Your task to perform on an android device: open a bookmark in the chrome app Image 0: 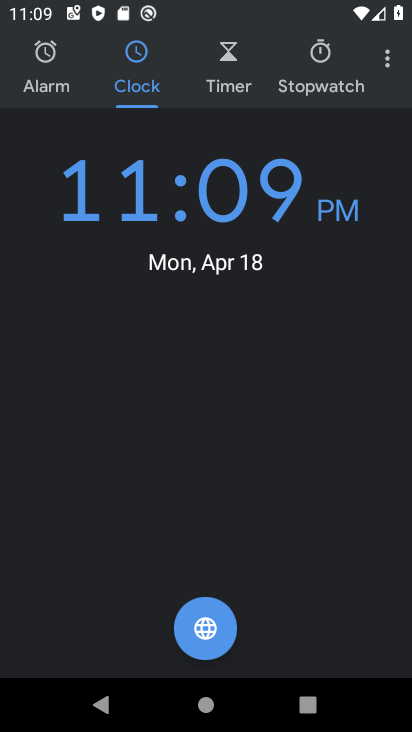
Step 0: press back button
Your task to perform on an android device: open a bookmark in the chrome app Image 1: 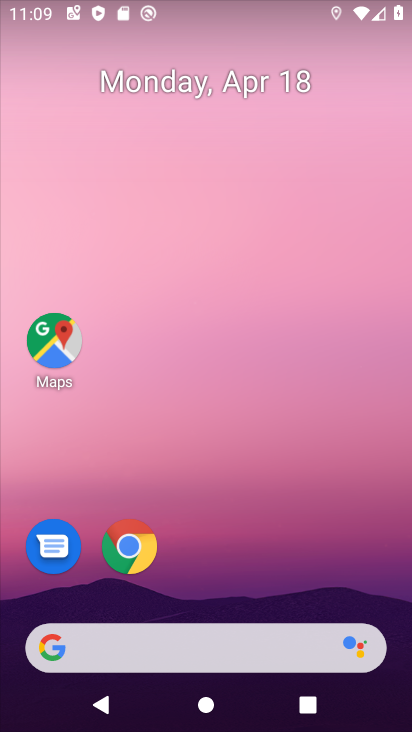
Step 1: click (119, 542)
Your task to perform on an android device: open a bookmark in the chrome app Image 2: 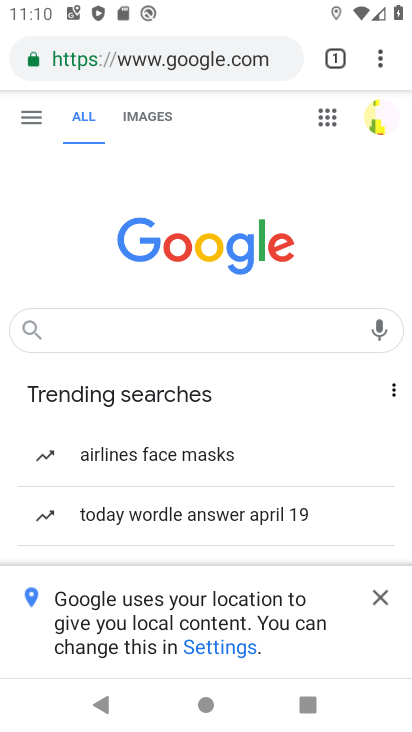
Step 2: click (389, 61)
Your task to perform on an android device: open a bookmark in the chrome app Image 3: 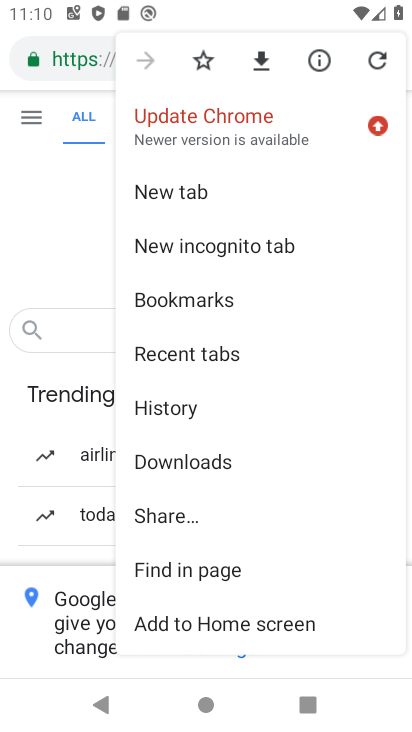
Step 3: click (267, 290)
Your task to perform on an android device: open a bookmark in the chrome app Image 4: 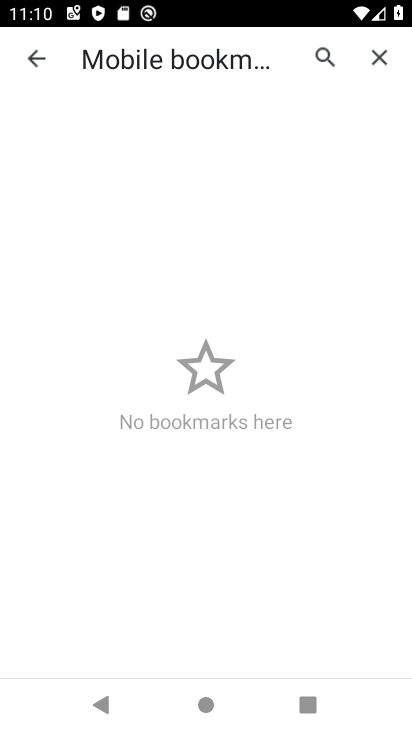
Step 4: task complete